Your task to perform on an android device: search for starred emails in the gmail app Image 0: 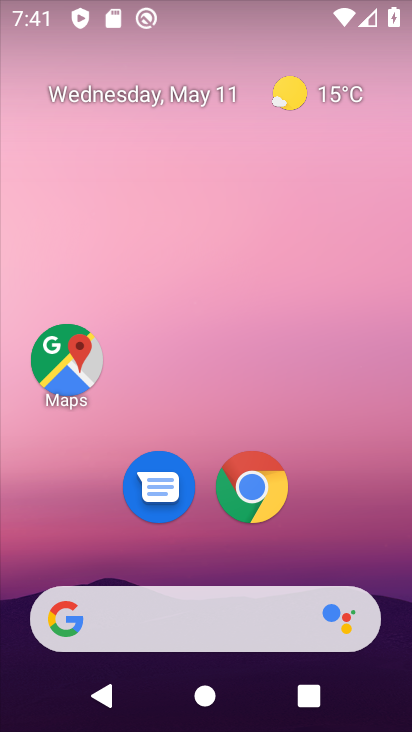
Step 0: drag from (339, 625) to (317, 202)
Your task to perform on an android device: search for starred emails in the gmail app Image 1: 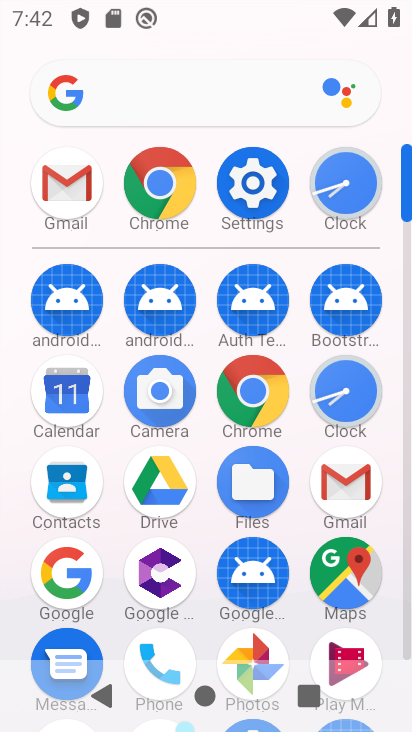
Step 1: click (343, 474)
Your task to perform on an android device: search for starred emails in the gmail app Image 2: 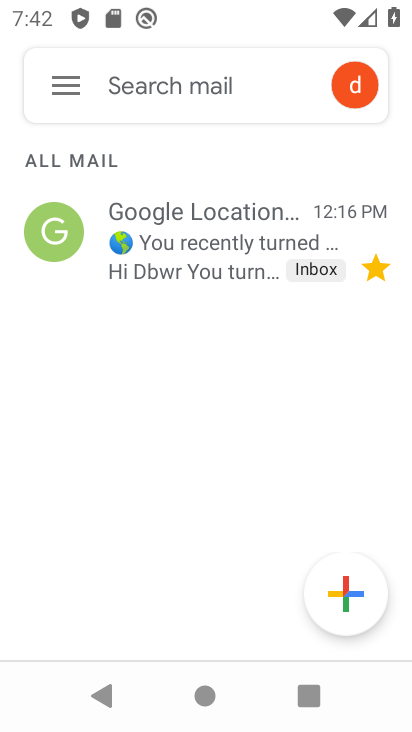
Step 2: click (225, 244)
Your task to perform on an android device: search for starred emails in the gmail app Image 3: 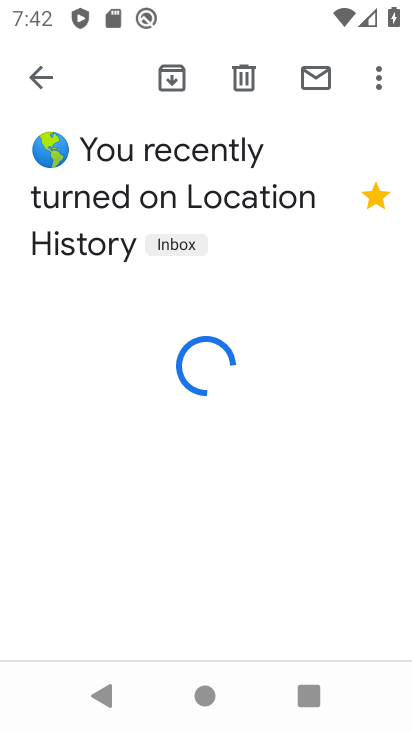
Step 3: click (38, 100)
Your task to perform on an android device: search for starred emails in the gmail app Image 4: 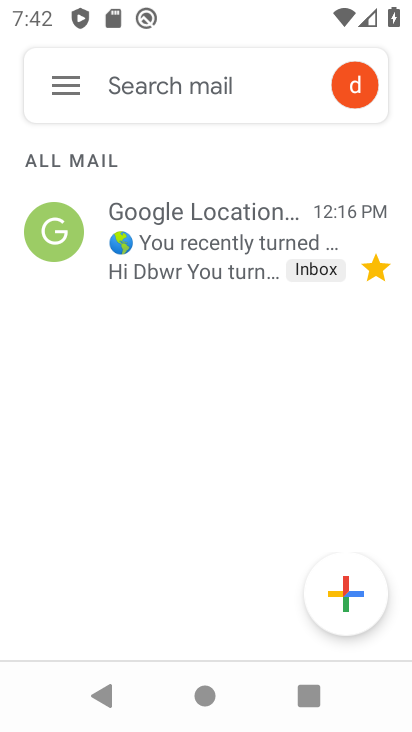
Step 4: click (43, 78)
Your task to perform on an android device: search for starred emails in the gmail app Image 5: 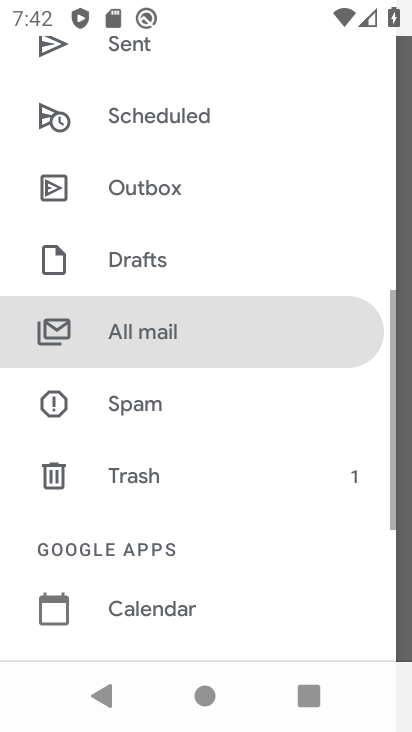
Step 5: drag from (147, 197) to (252, 505)
Your task to perform on an android device: search for starred emails in the gmail app Image 6: 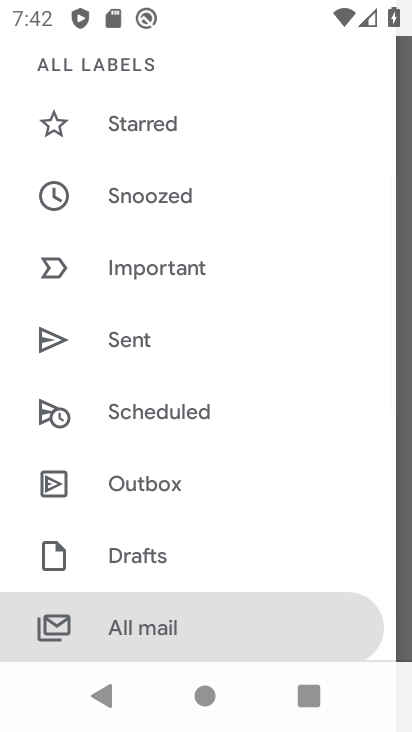
Step 6: click (134, 142)
Your task to perform on an android device: search for starred emails in the gmail app Image 7: 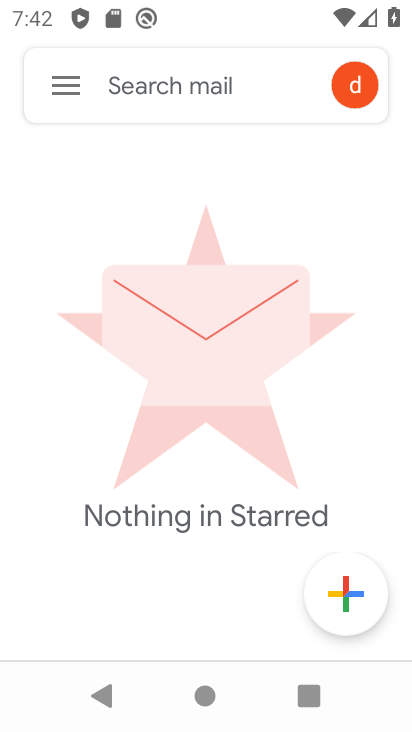
Step 7: task complete